Your task to perform on an android device: Open calendar and show me the fourth week of next month Image 0: 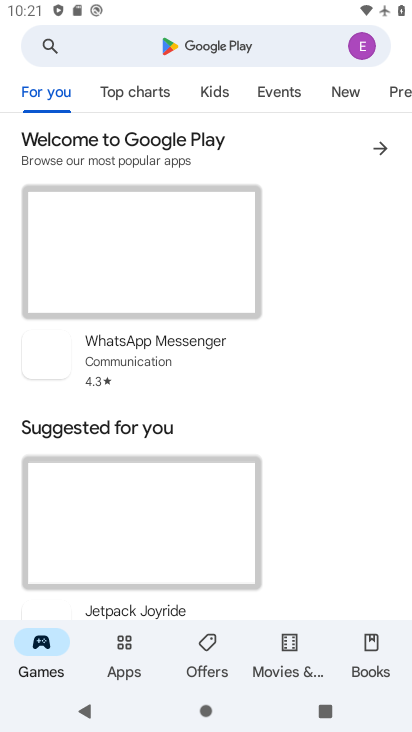
Step 0: press home button
Your task to perform on an android device: Open calendar and show me the fourth week of next month Image 1: 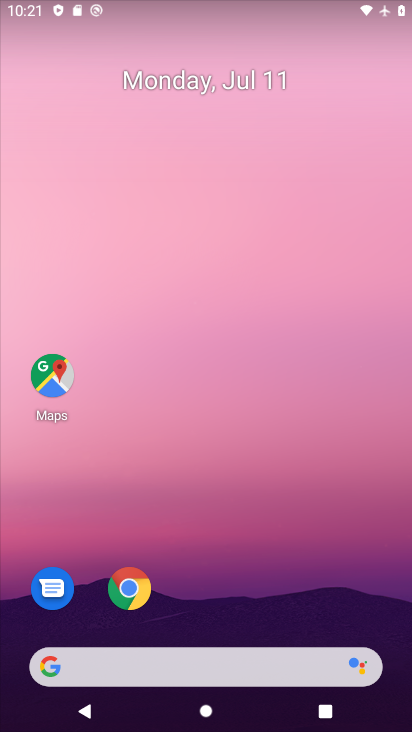
Step 1: drag from (196, 672) to (327, 86)
Your task to perform on an android device: Open calendar and show me the fourth week of next month Image 2: 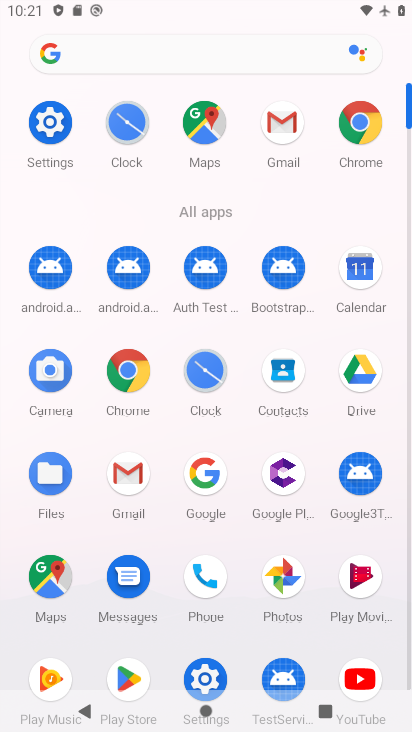
Step 2: click (354, 272)
Your task to perform on an android device: Open calendar and show me the fourth week of next month Image 3: 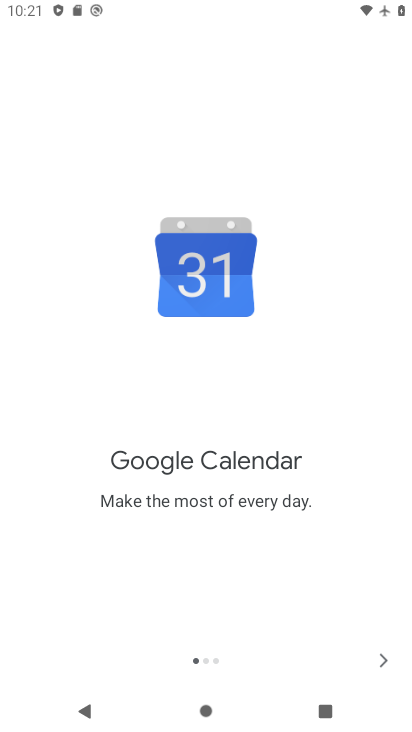
Step 3: click (381, 664)
Your task to perform on an android device: Open calendar and show me the fourth week of next month Image 4: 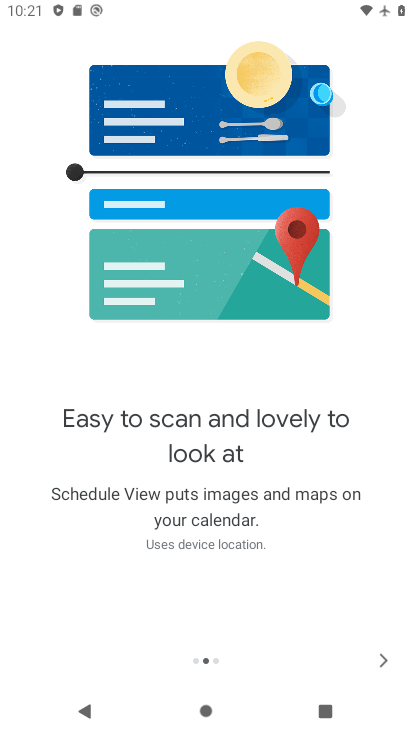
Step 4: click (381, 664)
Your task to perform on an android device: Open calendar and show me the fourth week of next month Image 5: 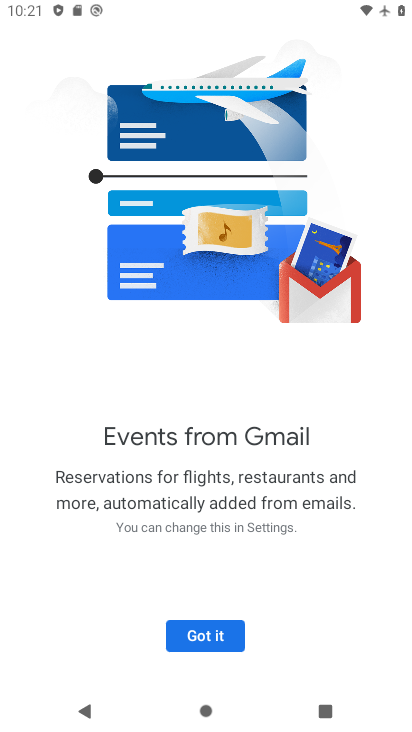
Step 5: click (191, 634)
Your task to perform on an android device: Open calendar and show me the fourth week of next month Image 6: 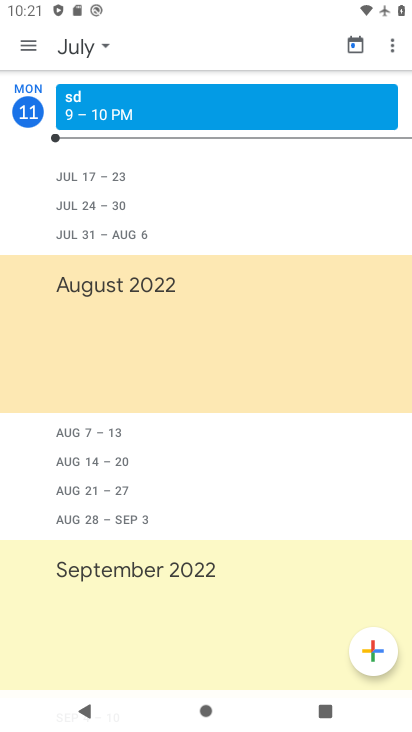
Step 6: click (86, 44)
Your task to perform on an android device: Open calendar and show me the fourth week of next month Image 7: 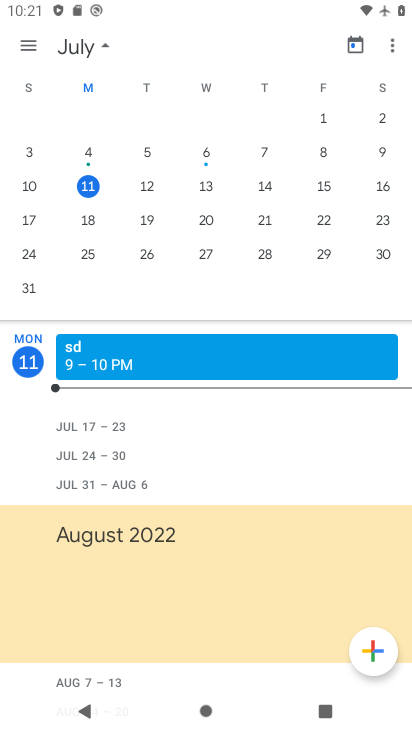
Step 7: drag from (360, 191) to (59, 245)
Your task to perform on an android device: Open calendar and show me the fourth week of next month Image 8: 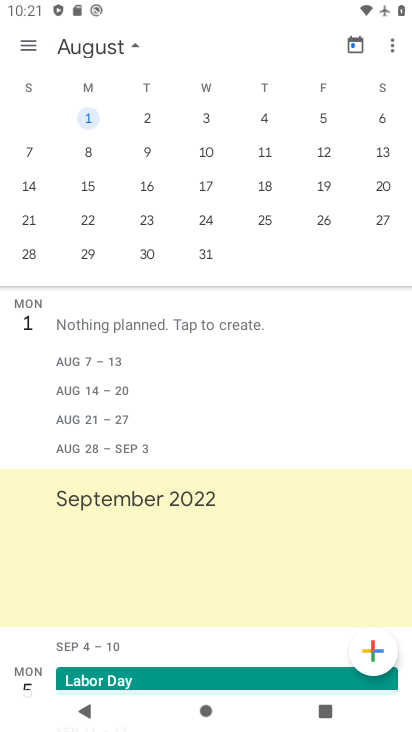
Step 8: click (33, 215)
Your task to perform on an android device: Open calendar and show me the fourth week of next month Image 9: 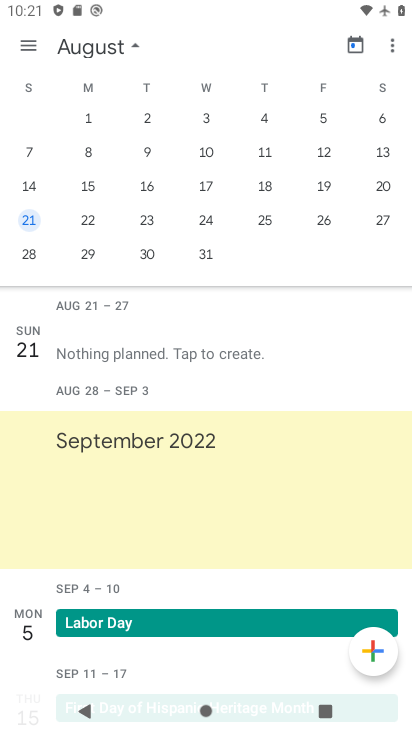
Step 9: click (31, 46)
Your task to perform on an android device: Open calendar and show me the fourth week of next month Image 10: 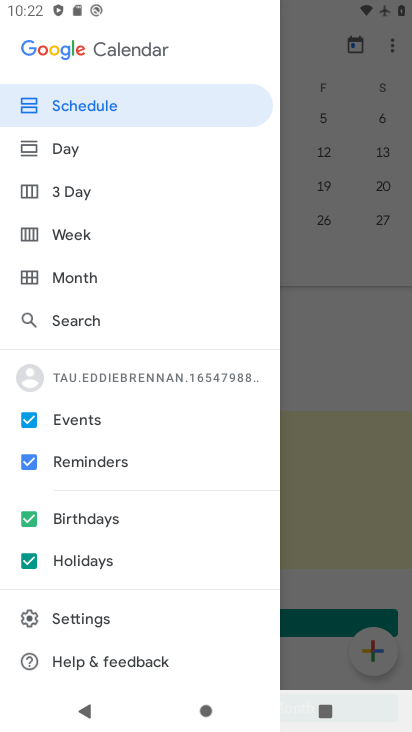
Step 10: click (83, 240)
Your task to perform on an android device: Open calendar and show me the fourth week of next month Image 11: 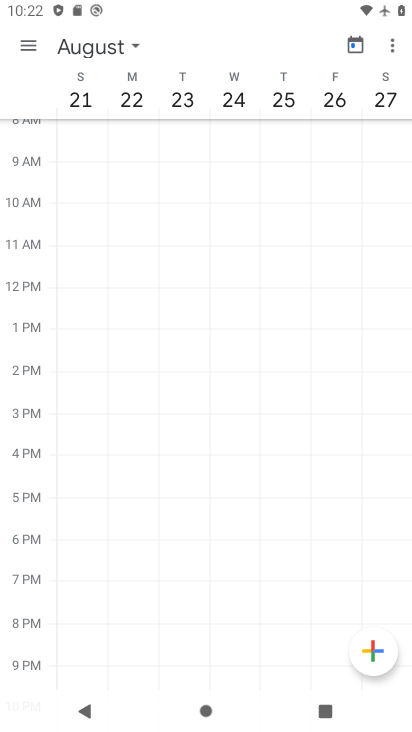
Step 11: task complete